Your task to perform on an android device: Open the web browser Image 0: 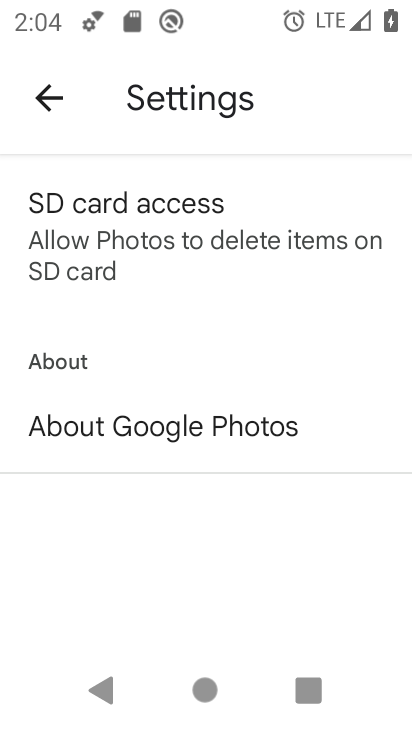
Step 0: press home button
Your task to perform on an android device: Open the web browser Image 1: 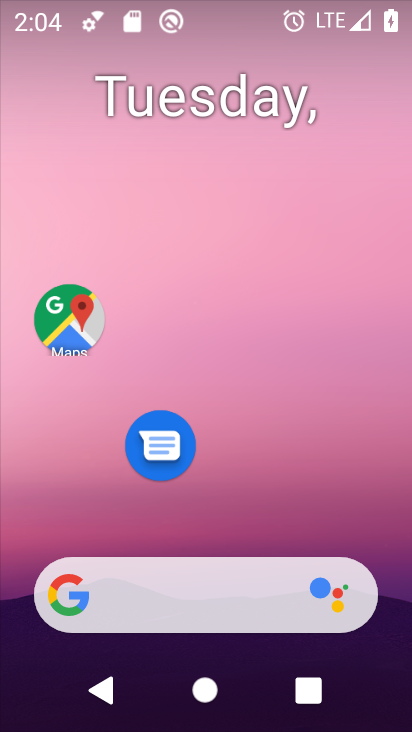
Step 1: drag from (232, 510) to (175, 57)
Your task to perform on an android device: Open the web browser Image 2: 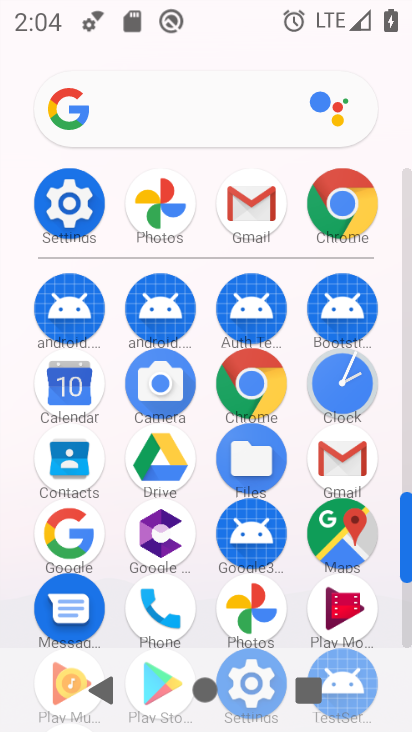
Step 2: click (337, 208)
Your task to perform on an android device: Open the web browser Image 3: 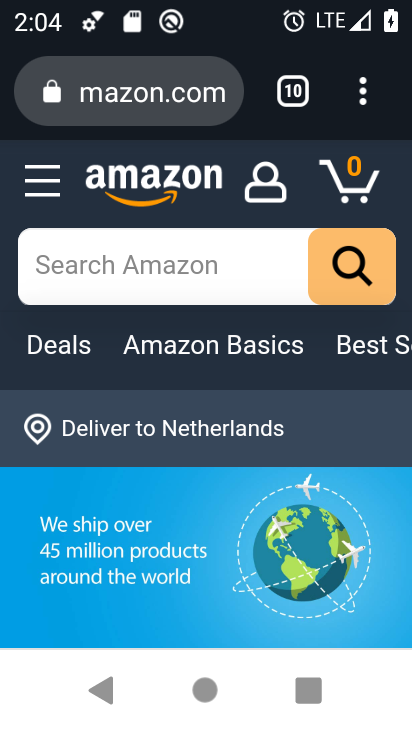
Step 3: task complete